Your task to perform on an android device: Go to notification settings Image 0: 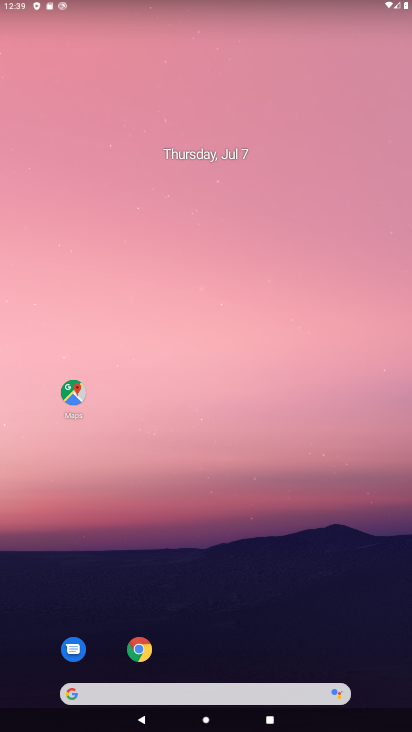
Step 0: drag from (204, 664) to (340, 17)
Your task to perform on an android device: Go to notification settings Image 1: 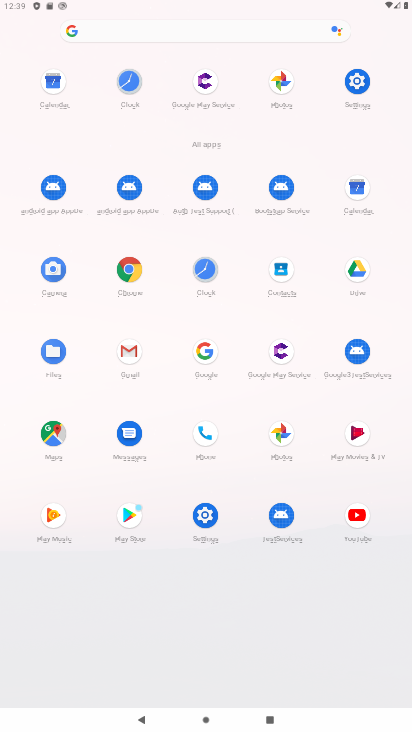
Step 1: click (366, 113)
Your task to perform on an android device: Go to notification settings Image 2: 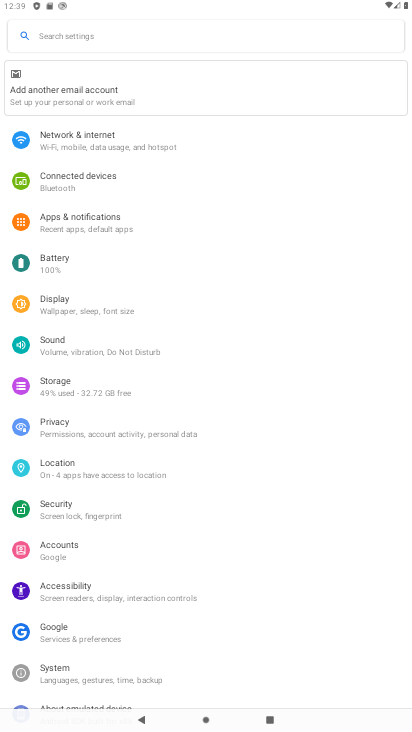
Step 2: click (108, 212)
Your task to perform on an android device: Go to notification settings Image 3: 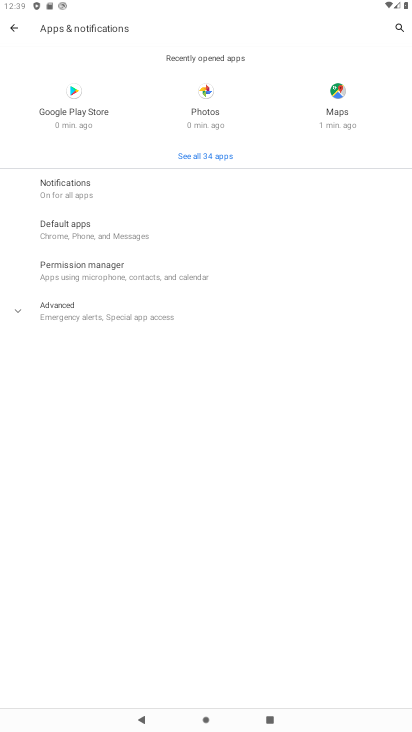
Step 3: click (94, 190)
Your task to perform on an android device: Go to notification settings Image 4: 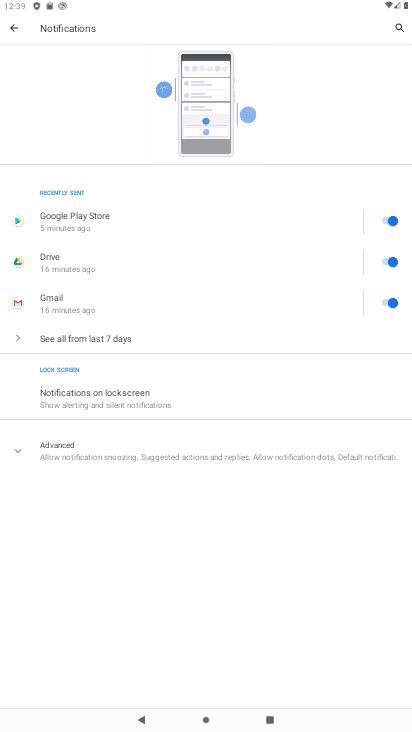
Step 4: click (49, 441)
Your task to perform on an android device: Go to notification settings Image 5: 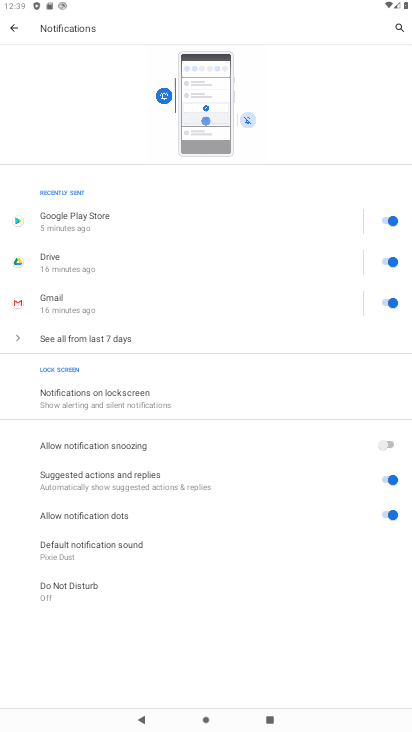
Step 5: task complete